Your task to perform on an android device: Is it going to rain today? Image 0: 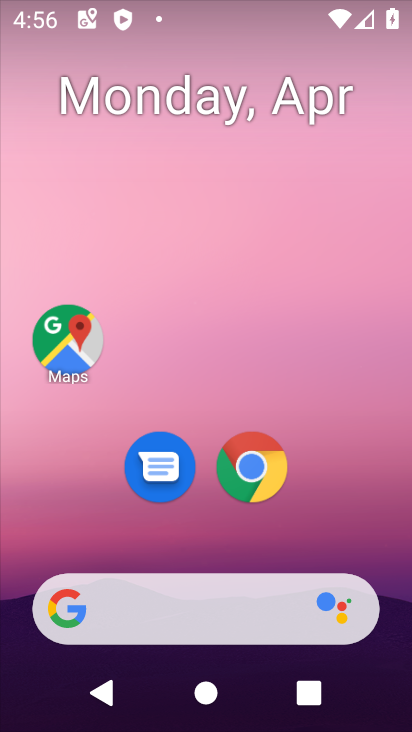
Step 0: drag from (341, 569) to (324, 2)
Your task to perform on an android device: Is it going to rain today? Image 1: 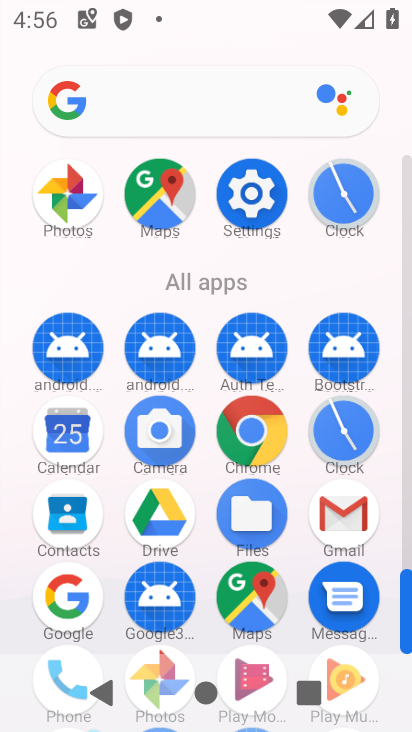
Step 1: click (257, 586)
Your task to perform on an android device: Is it going to rain today? Image 2: 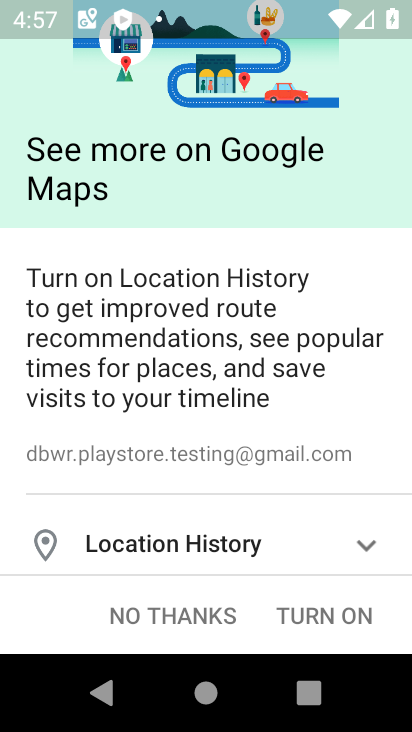
Step 2: task complete